Your task to perform on an android device: Go to Yahoo.com Image 0: 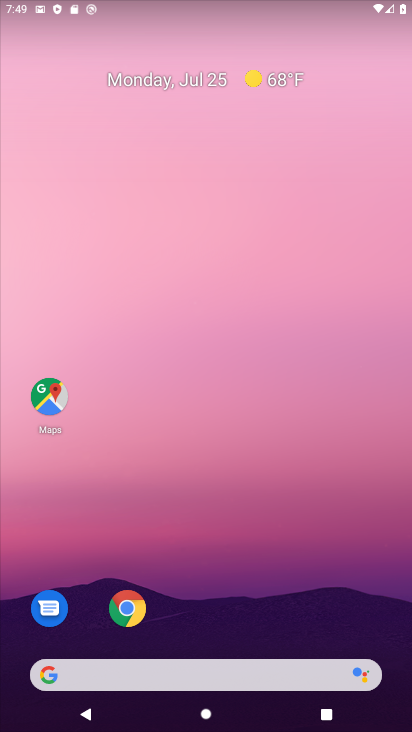
Step 0: click (141, 635)
Your task to perform on an android device: Go to Yahoo.com Image 1: 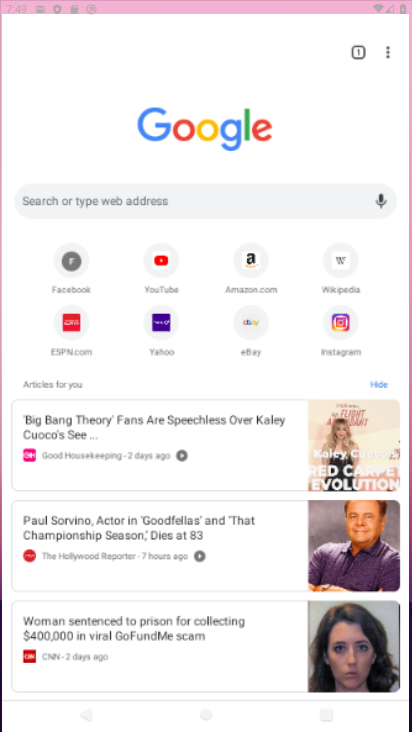
Step 1: click (133, 669)
Your task to perform on an android device: Go to Yahoo.com Image 2: 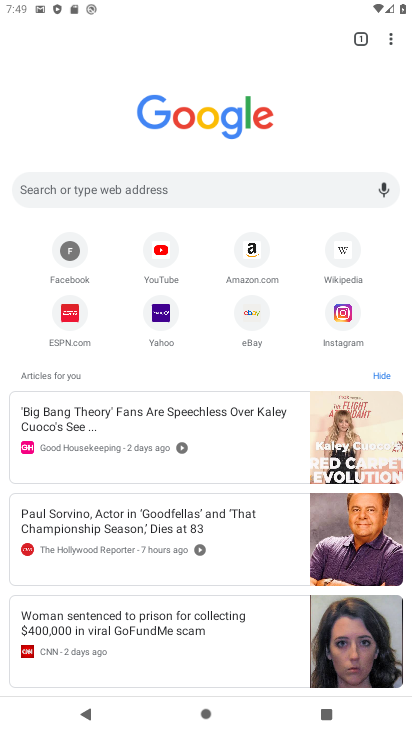
Step 2: click (163, 322)
Your task to perform on an android device: Go to Yahoo.com Image 3: 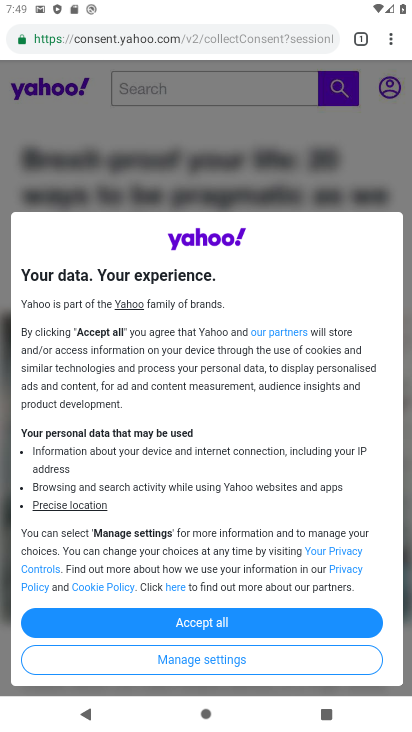
Step 3: task complete